Your task to perform on an android device: Open my contact list Image 0: 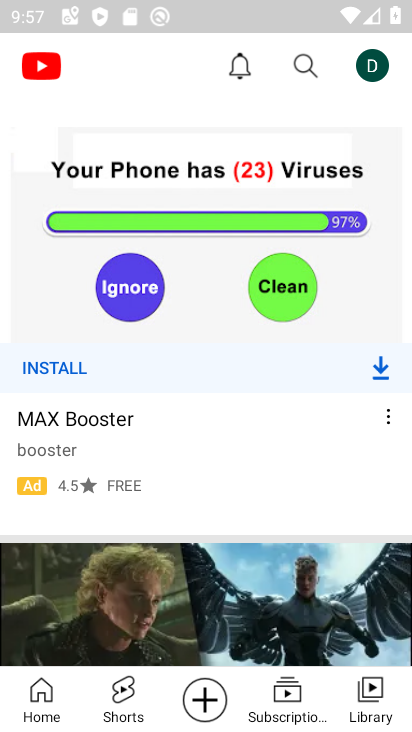
Step 0: press home button
Your task to perform on an android device: Open my contact list Image 1: 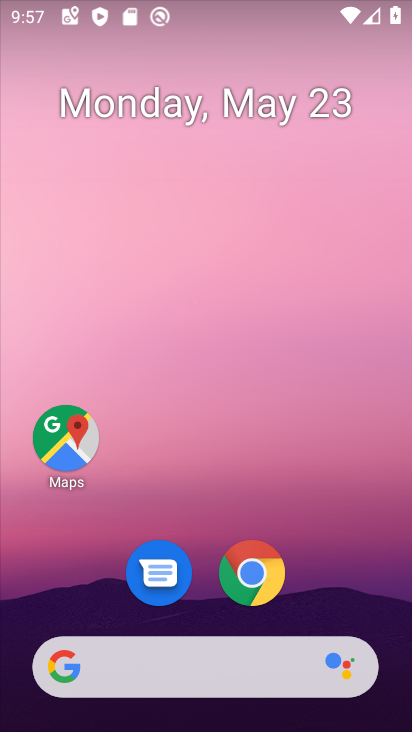
Step 1: drag from (385, 605) to (386, 214)
Your task to perform on an android device: Open my contact list Image 2: 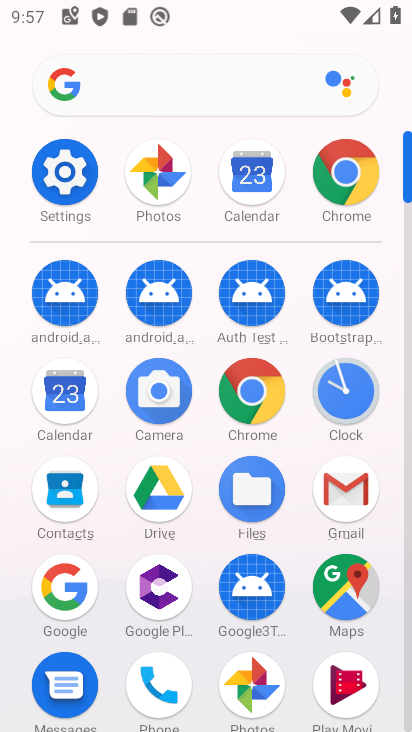
Step 2: click (52, 496)
Your task to perform on an android device: Open my contact list Image 3: 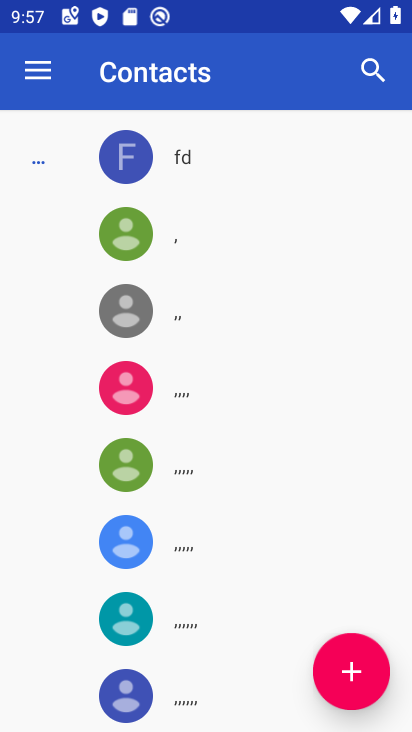
Step 3: task complete